Your task to perform on an android device: turn off notifications in google photos Image 0: 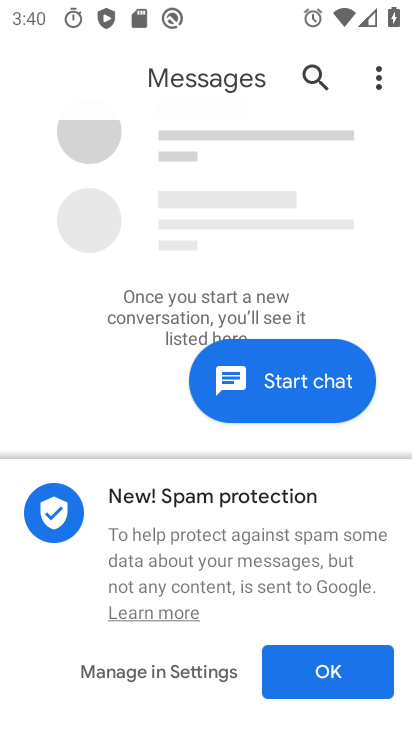
Step 0: press home button
Your task to perform on an android device: turn off notifications in google photos Image 1: 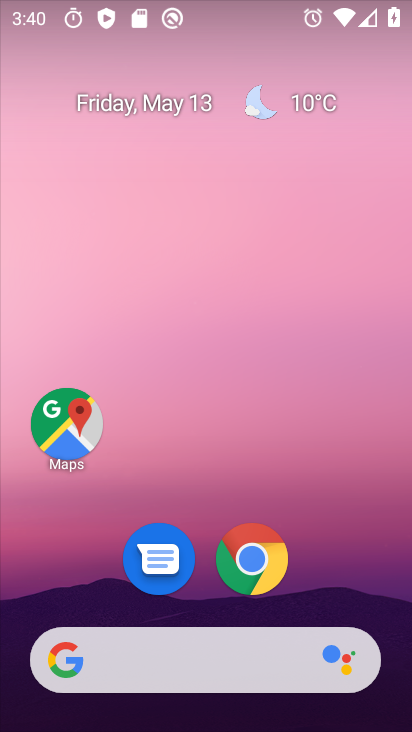
Step 1: drag from (196, 602) to (196, 179)
Your task to perform on an android device: turn off notifications in google photos Image 2: 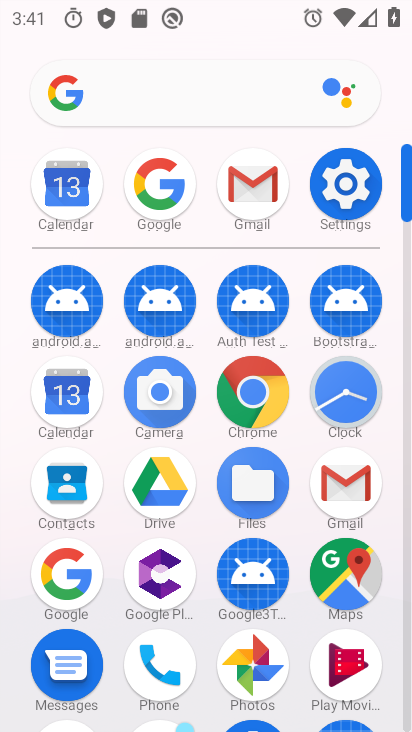
Step 2: click (234, 668)
Your task to perform on an android device: turn off notifications in google photos Image 3: 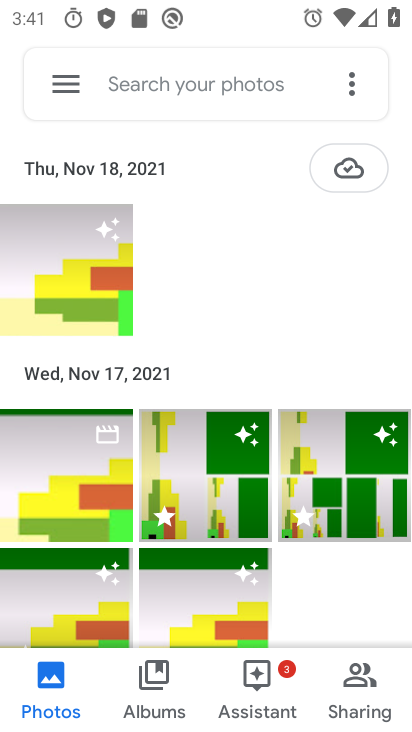
Step 3: click (346, 87)
Your task to perform on an android device: turn off notifications in google photos Image 4: 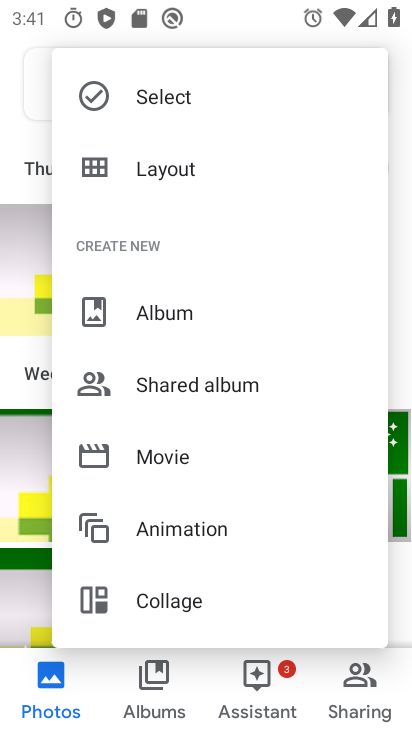
Step 4: drag from (209, 593) to (29, 504)
Your task to perform on an android device: turn off notifications in google photos Image 5: 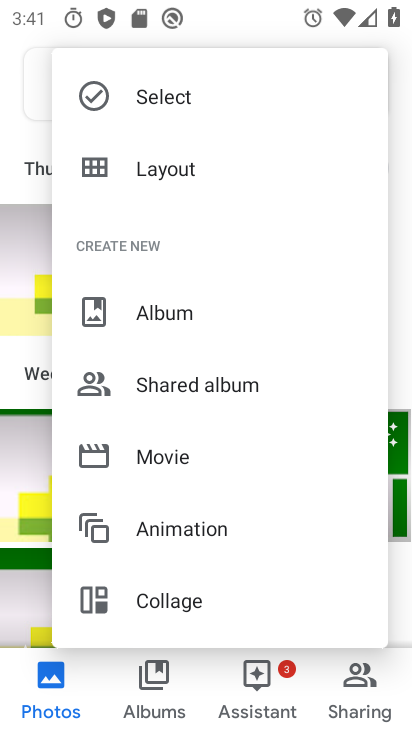
Step 5: click (44, 531)
Your task to perform on an android device: turn off notifications in google photos Image 6: 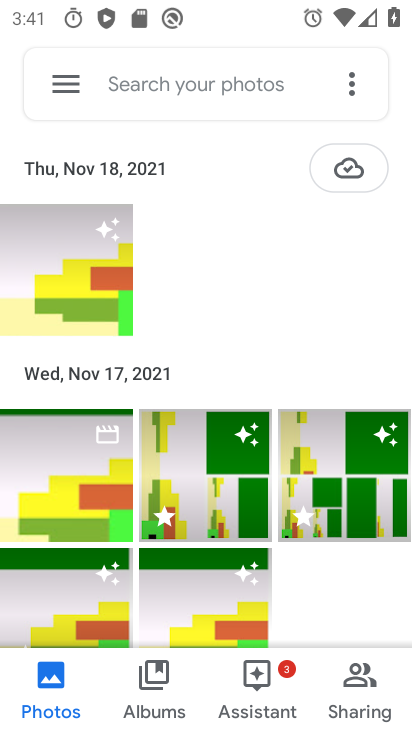
Step 6: click (59, 82)
Your task to perform on an android device: turn off notifications in google photos Image 7: 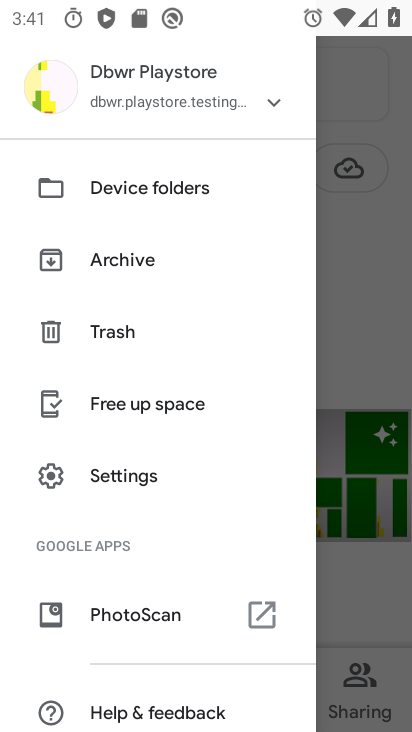
Step 7: click (132, 487)
Your task to perform on an android device: turn off notifications in google photos Image 8: 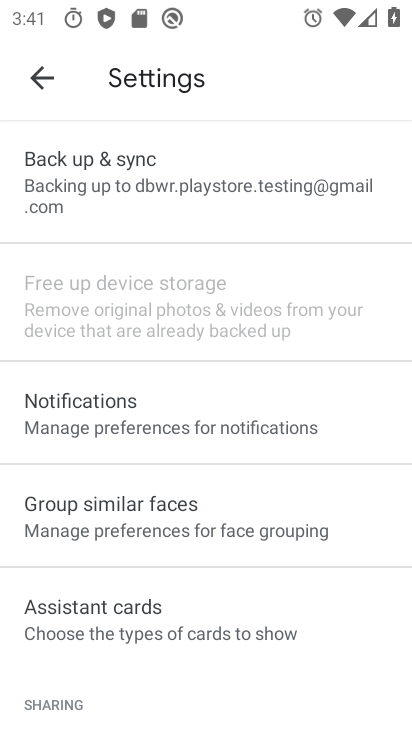
Step 8: drag from (202, 581) to (225, 316)
Your task to perform on an android device: turn off notifications in google photos Image 9: 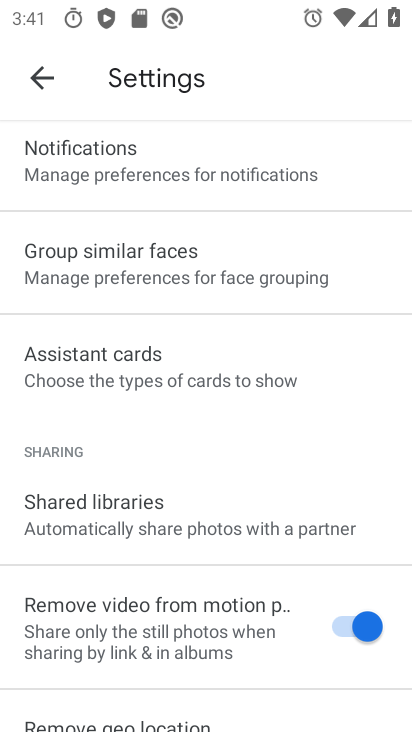
Step 9: click (135, 173)
Your task to perform on an android device: turn off notifications in google photos Image 10: 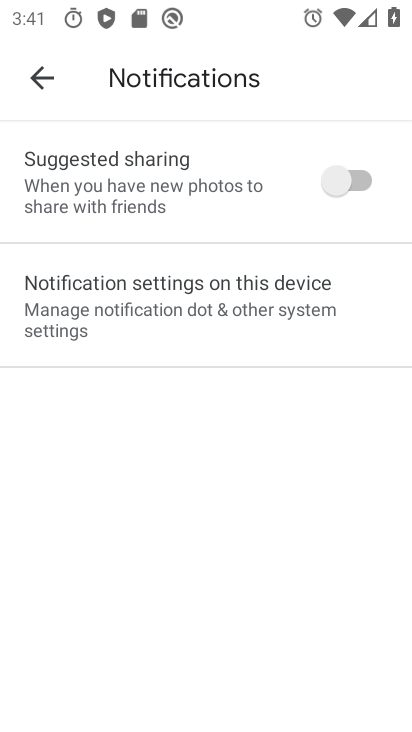
Step 10: click (157, 331)
Your task to perform on an android device: turn off notifications in google photos Image 11: 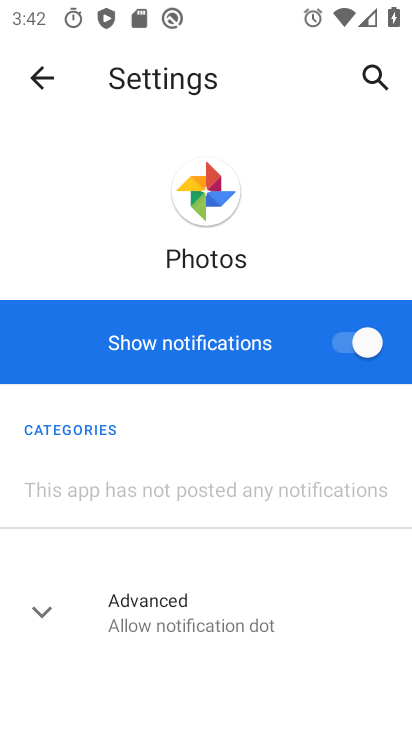
Step 11: task complete